Your task to perform on an android device: Open Google Chrome and click the shortcut for Amazon.com Image 0: 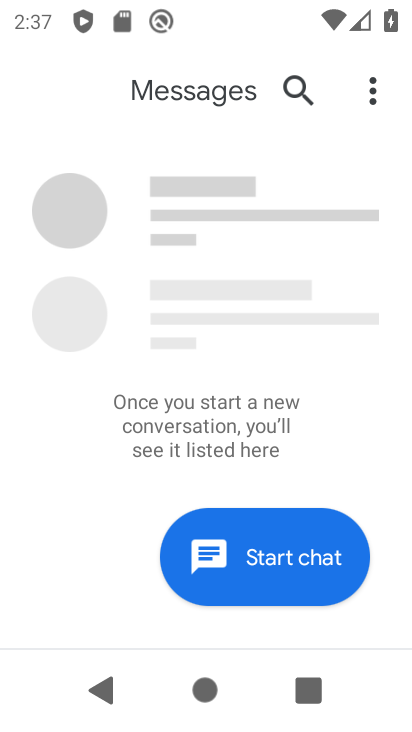
Step 0: press home button
Your task to perform on an android device: Open Google Chrome and click the shortcut for Amazon.com Image 1: 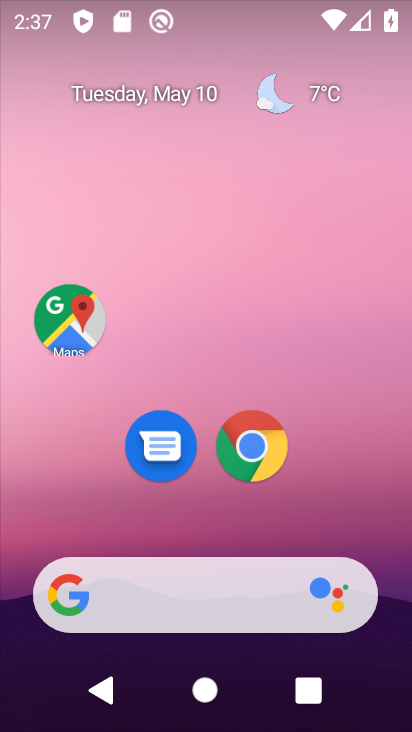
Step 1: click (251, 443)
Your task to perform on an android device: Open Google Chrome and click the shortcut for Amazon.com Image 2: 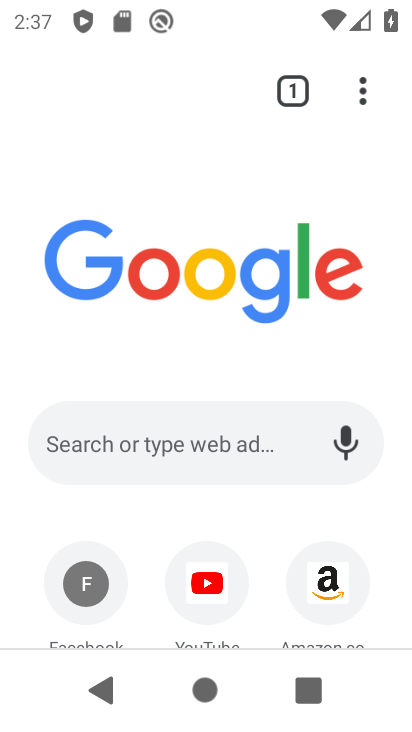
Step 2: click (327, 570)
Your task to perform on an android device: Open Google Chrome and click the shortcut for Amazon.com Image 3: 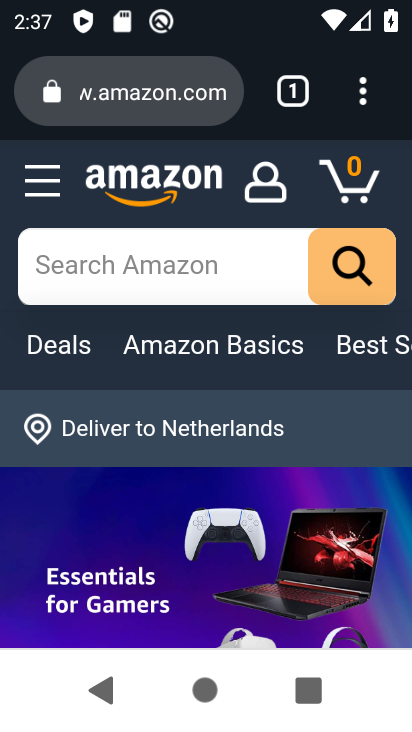
Step 3: task complete